Your task to perform on an android device: toggle show notifications on the lock screen Image 0: 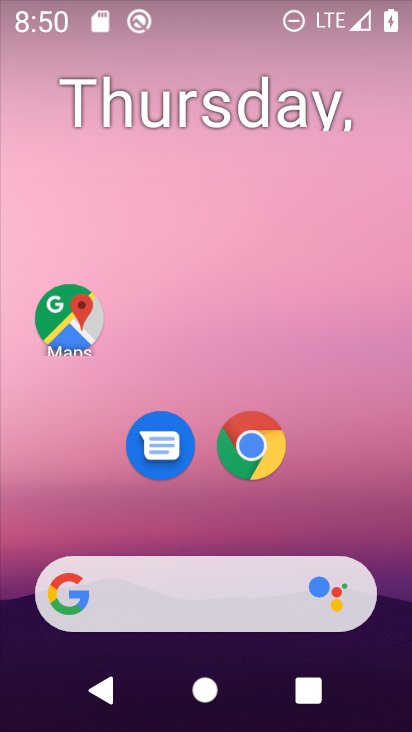
Step 0: drag from (389, 632) to (294, 86)
Your task to perform on an android device: toggle show notifications on the lock screen Image 1: 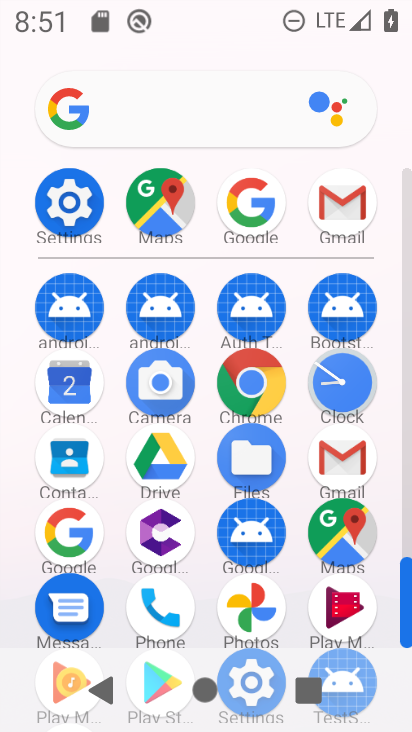
Step 1: click (64, 191)
Your task to perform on an android device: toggle show notifications on the lock screen Image 2: 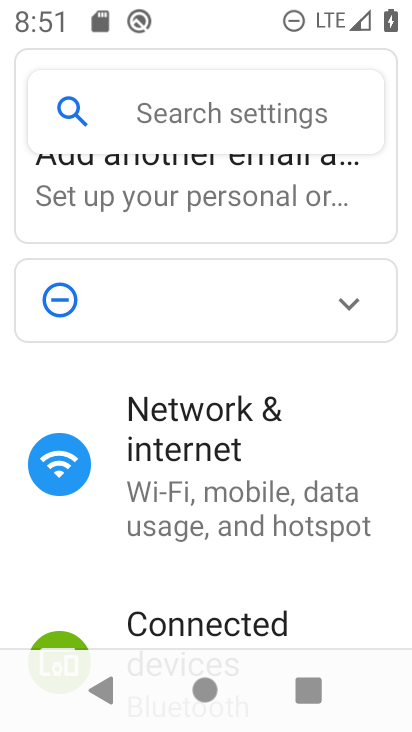
Step 2: drag from (203, 600) to (215, 139)
Your task to perform on an android device: toggle show notifications on the lock screen Image 3: 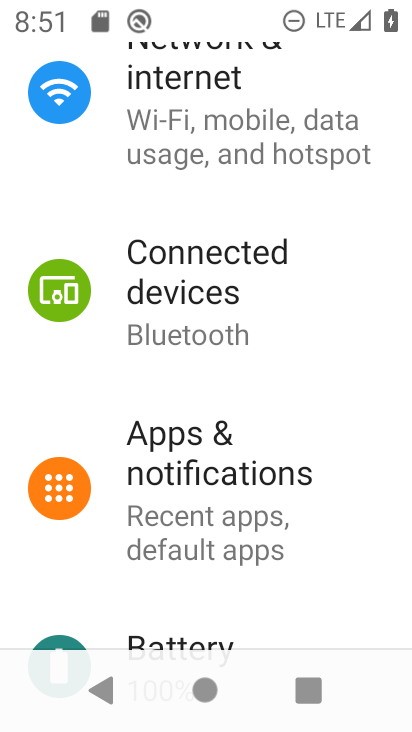
Step 3: click (179, 431)
Your task to perform on an android device: toggle show notifications on the lock screen Image 4: 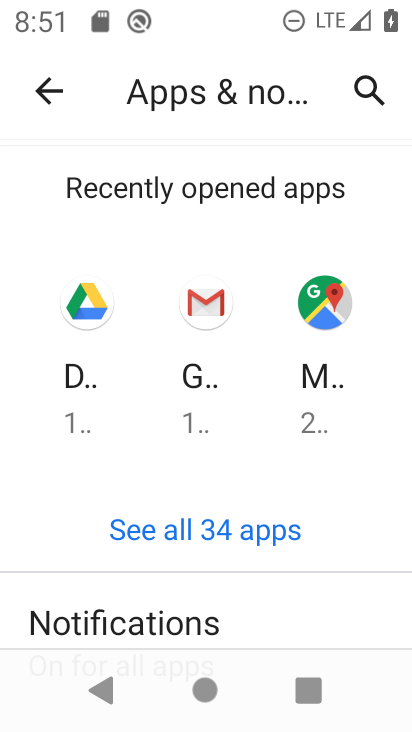
Step 4: click (279, 608)
Your task to perform on an android device: toggle show notifications on the lock screen Image 5: 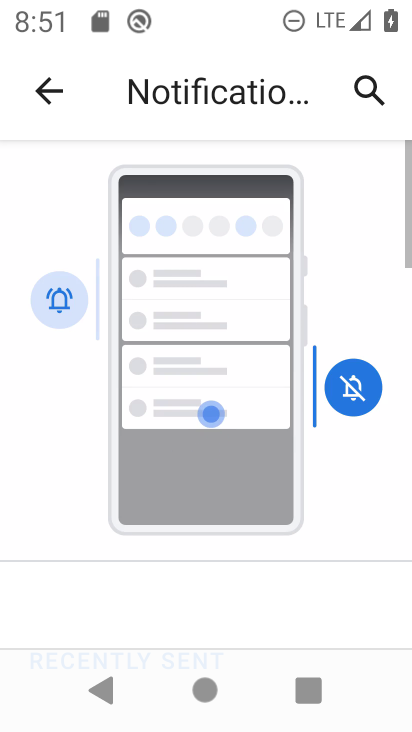
Step 5: click (279, 608)
Your task to perform on an android device: toggle show notifications on the lock screen Image 6: 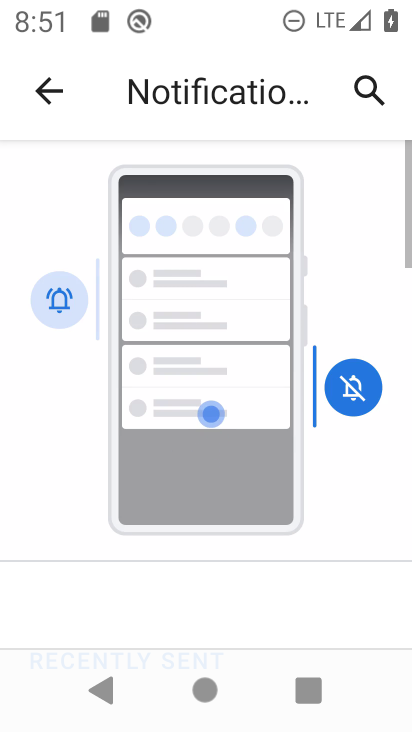
Step 6: drag from (279, 608) to (253, 8)
Your task to perform on an android device: toggle show notifications on the lock screen Image 7: 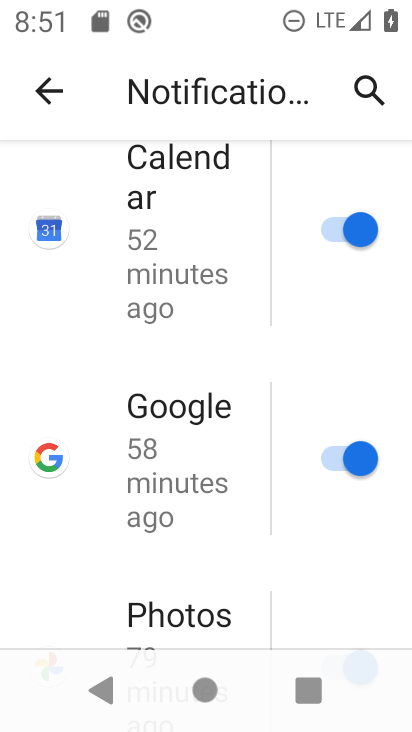
Step 7: drag from (156, 546) to (365, 628)
Your task to perform on an android device: toggle show notifications on the lock screen Image 8: 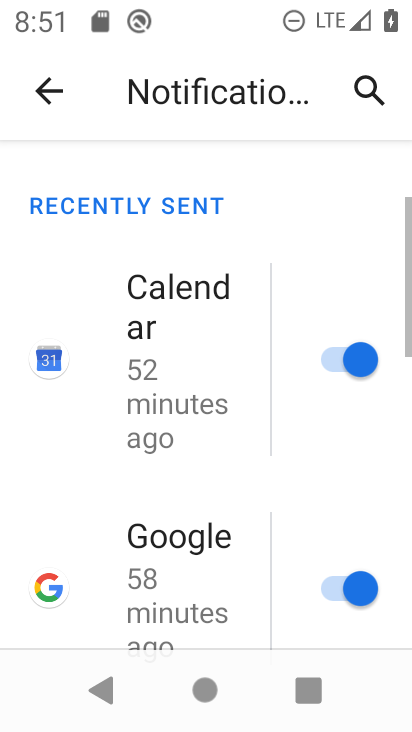
Step 8: click (206, 586)
Your task to perform on an android device: toggle show notifications on the lock screen Image 9: 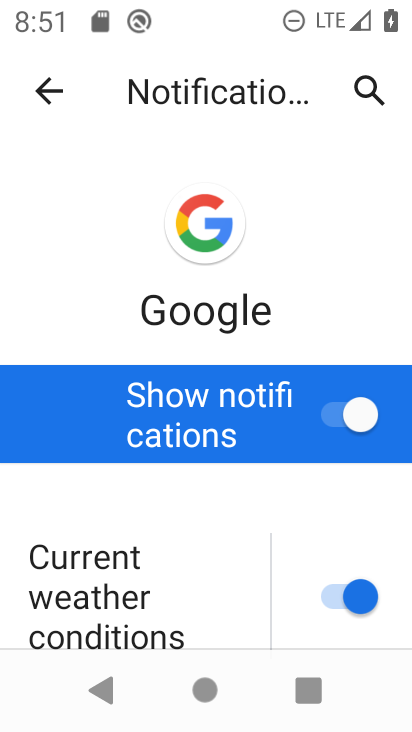
Step 9: press back button
Your task to perform on an android device: toggle show notifications on the lock screen Image 10: 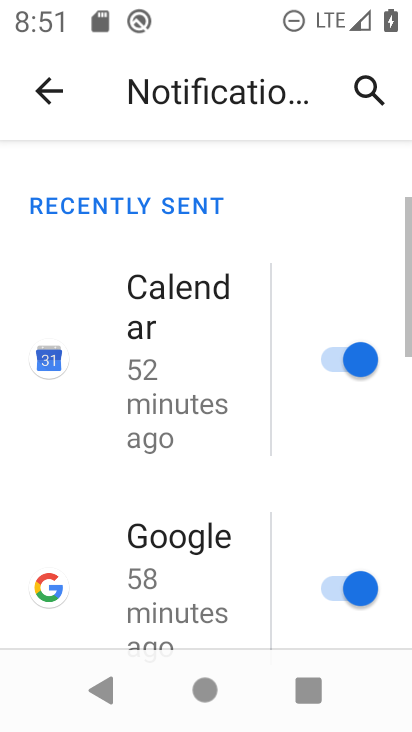
Step 10: drag from (126, 564) to (111, 61)
Your task to perform on an android device: toggle show notifications on the lock screen Image 11: 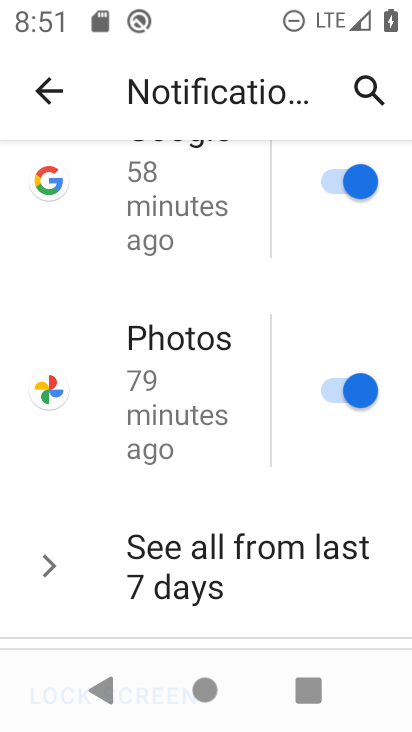
Step 11: drag from (126, 551) to (124, 111)
Your task to perform on an android device: toggle show notifications on the lock screen Image 12: 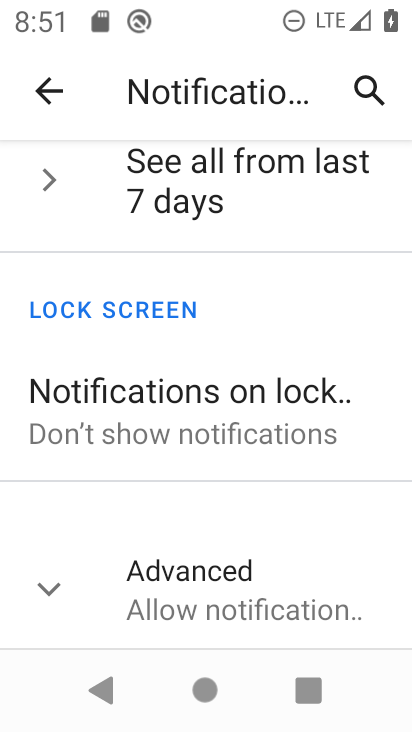
Step 12: click (113, 416)
Your task to perform on an android device: toggle show notifications on the lock screen Image 13: 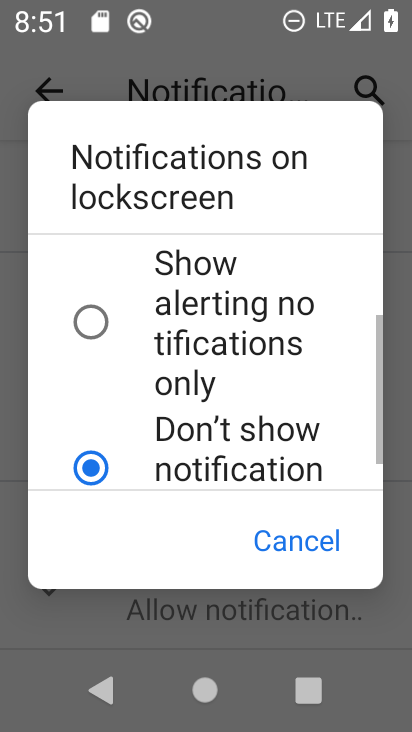
Step 13: click (95, 325)
Your task to perform on an android device: toggle show notifications on the lock screen Image 14: 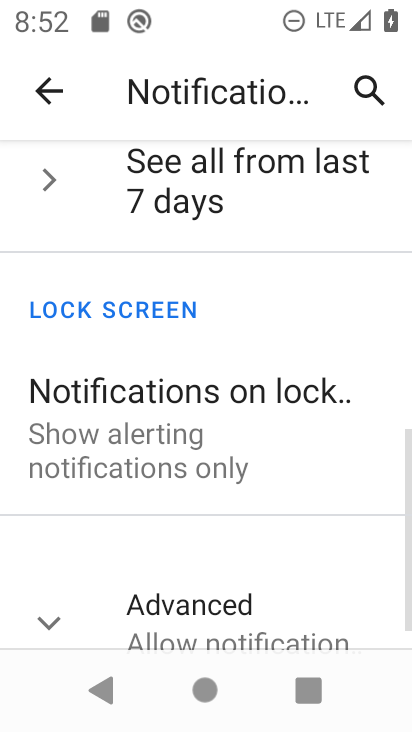
Step 14: click (177, 605)
Your task to perform on an android device: toggle show notifications on the lock screen Image 15: 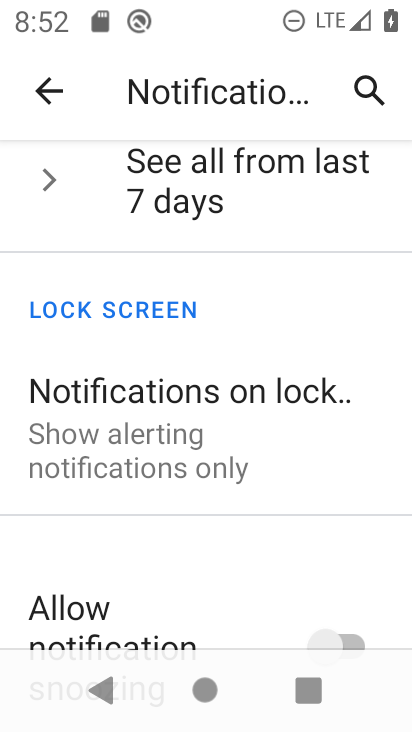
Step 15: click (167, 449)
Your task to perform on an android device: toggle show notifications on the lock screen Image 16: 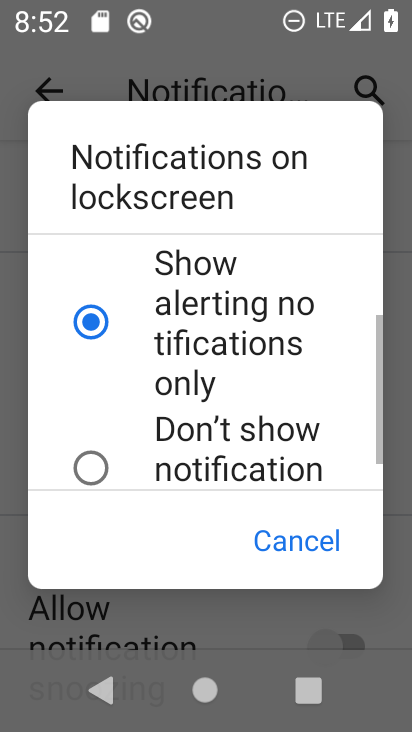
Step 16: drag from (195, 260) to (194, 488)
Your task to perform on an android device: toggle show notifications on the lock screen Image 17: 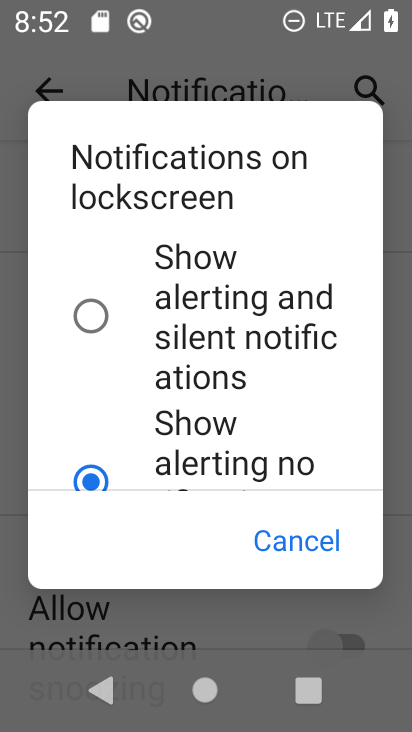
Step 17: click (117, 308)
Your task to perform on an android device: toggle show notifications on the lock screen Image 18: 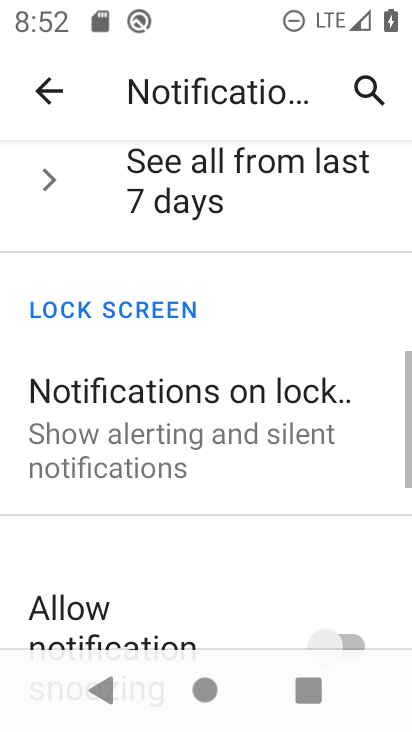
Step 18: task complete